Your task to perform on an android device: Empty the shopping cart on bestbuy.com. Search for "usb-b" on bestbuy.com, select the first entry, and add it to the cart. Image 0: 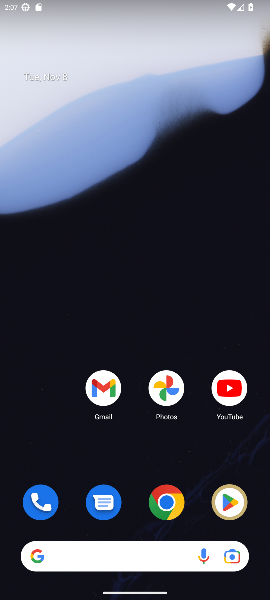
Step 0: drag from (98, 495) to (100, 177)
Your task to perform on an android device: Empty the shopping cart on bestbuy.com. Search for "usb-b" on bestbuy.com, select the first entry, and add it to the cart. Image 1: 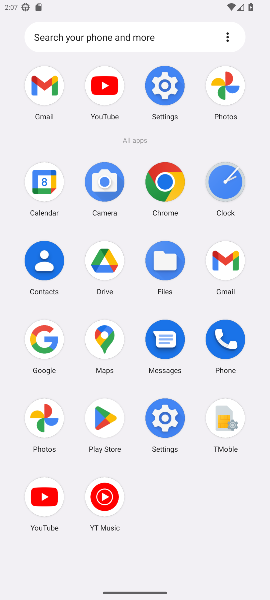
Step 1: click (35, 326)
Your task to perform on an android device: Empty the shopping cart on bestbuy.com. Search for "usb-b" on bestbuy.com, select the first entry, and add it to the cart. Image 2: 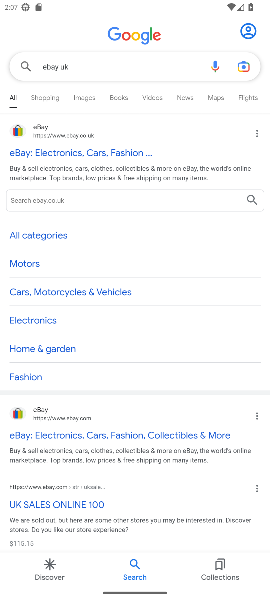
Step 2: click (94, 68)
Your task to perform on an android device: Empty the shopping cart on bestbuy.com. Search for "usb-b" on bestbuy.com, select the first entry, and add it to the cart. Image 3: 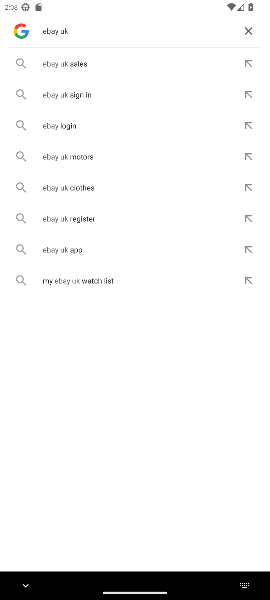
Step 3: click (249, 30)
Your task to perform on an android device: Empty the shopping cart on bestbuy.com. Search for "usb-b" on bestbuy.com, select the first entry, and add it to the cart. Image 4: 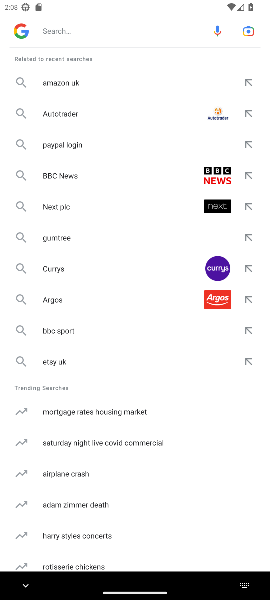
Step 4: click (125, 33)
Your task to perform on an android device: Empty the shopping cart on bestbuy.com. Search for "usb-b" on bestbuy.com, select the first entry, and add it to the cart. Image 5: 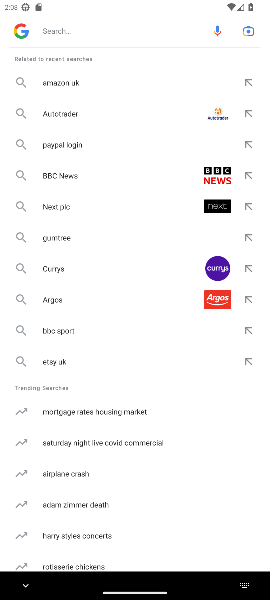
Step 5: type "bestbuy "
Your task to perform on an android device: Empty the shopping cart on bestbuy.com. Search for "usb-b" on bestbuy.com, select the first entry, and add it to the cart. Image 6: 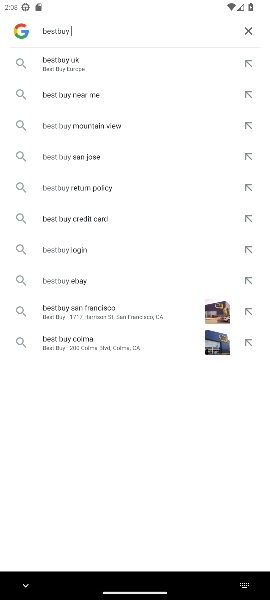
Step 6: click (71, 57)
Your task to perform on an android device: Empty the shopping cart on bestbuy.com. Search for "usb-b" on bestbuy.com, select the first entry, and add it to the cart. Image 7: 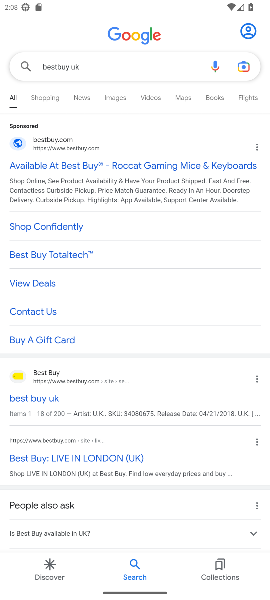
Step 7: click (17, 371)
Your task to perform on an android device: Empty the shopping cart on bestbuy.com. Search for "usb-b" on bestbuy.com, select the first entry, and add it to the cart. Image 8: 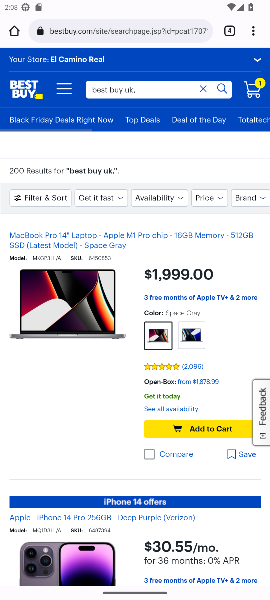
Step 8: click (126, 82)
Your task to perform on an android device: Empty the shopping cart on bestbuy.com. Search for "usb-b" on bestbuy.com, select the first entry, and add it to the cart. Image 9: 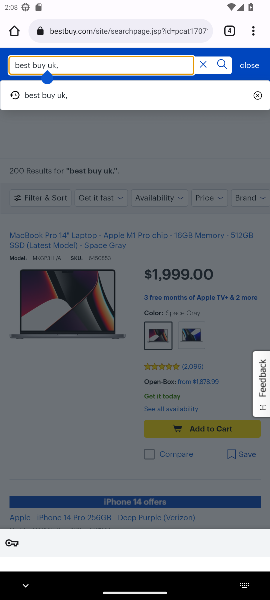
Step 9: click (202, 67)
Your task to perform on an android device: Empty the shopping cart on bestbuy.com. Search for "usb-b" on bestbuy.com, select the first entry, and add it to the cart. Image 10: 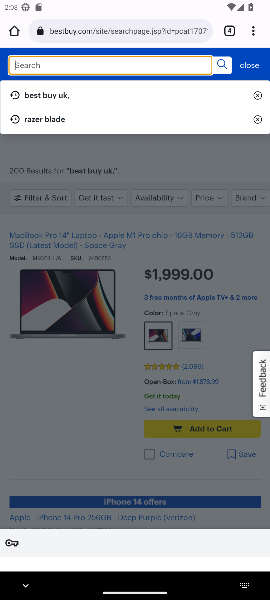
Step 10: click (87, 64)
Your task to perform on an android device: Empty the shopping cart on bestbuy.com. Search for "usb-b" on bestbuy.com, select the first entry, and add it to the cart. Image 11: 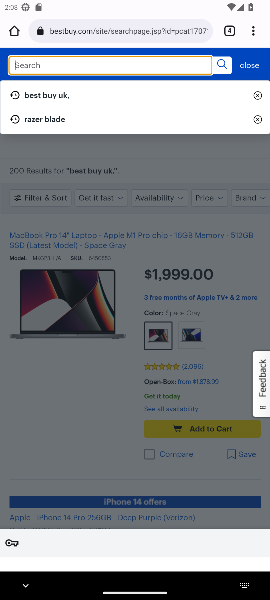
Step 11: click (102, 67)
Your task to perform on an android device: Empty the shopping cart on bestbuy.com. Search for "usb-b" on bestbuy.com, select the first entry, and add it to the cart. Image 12: 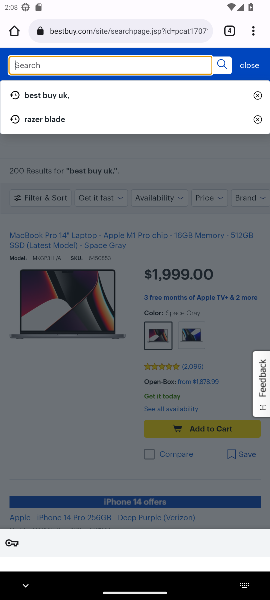
Step 12: click (102, 67)
Your task to perform on an android device: Empty the shopping cart on bestbuy.com. Search for "usb-b" on bestbuy.com, select the first entry, and add it to the cart. Image 13: 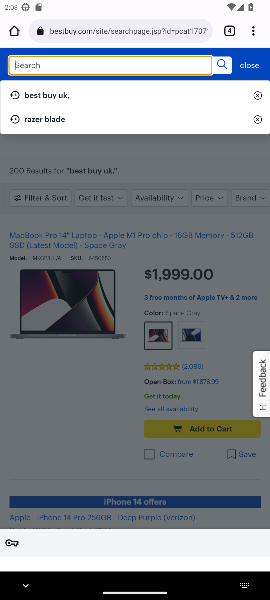
Step 13: click (104, 59)
Your task to perform on an android device: Empty the shopping cart on bestbuy.com. Search for "usb-b" on bestbuy.com, select the first entry, and add it to the cart. Image 14: 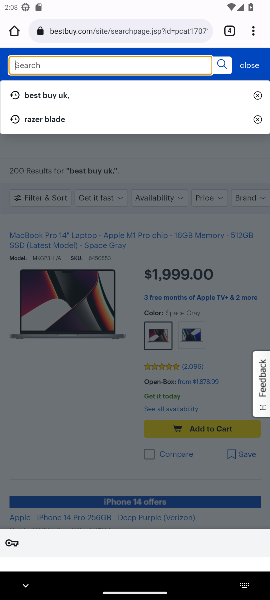
Step 14: click (104, 59)
Your task to perform on an android device: Empty the shopping cart on bestbuy.com. Search for "usb-b" on bestbuy.com, select the first entry, and add it to the cart. Image 15: 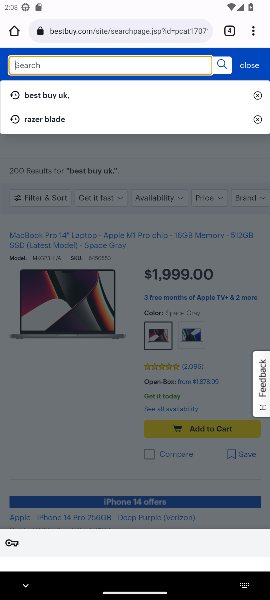
Step 15: type "usb-b "
Your task to perform on an android device: Empty the shopping cart on bestbuy.com. Search for "usb-b" on bestbuy.com, select the first entry, and add it to the cart. Image 16: 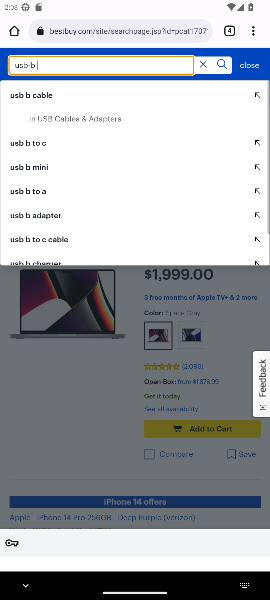
Step 16: click (43, 91)
Your task to perform on an android device: Empty the shopping cart on bestbuy.com. Search for "usb-b" on bestbuy.com, select the first entry, and add it to the cart. Image 17: 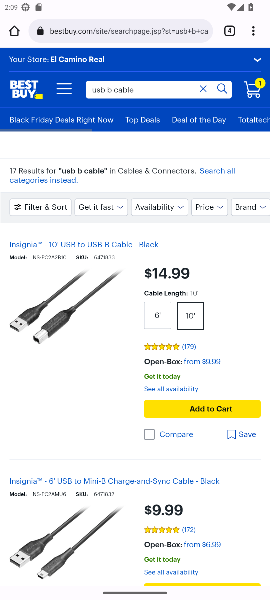
Step 17: click (205, 402)
Your task to perform on an android device: Empty the shopping cart on bestbuy.com. Search for "usb-b" on bestbuy.com, select the first entry, and add it to the cart. Image 18: 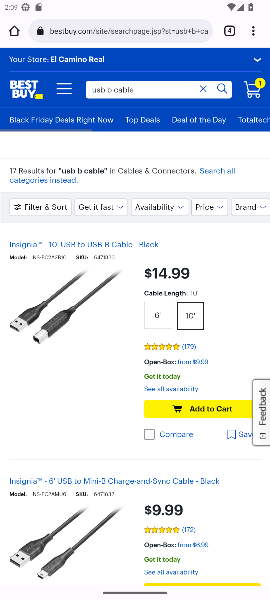
Step 18: click (200, 409)
Your task to perform on an android device: Empty the shopping cart on bestbuy.com. Search for "usb-b" on bestbuy.com, select the first entry, and add it to the cart. Image 19: 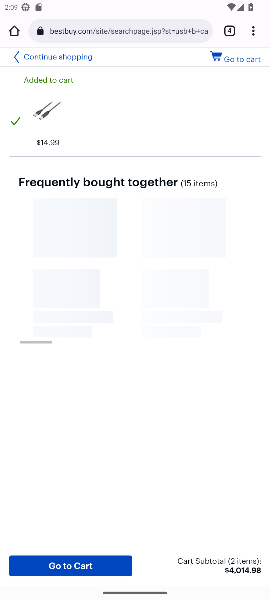
Step 19: click (92, 557)
Your task to perform on an android device: Empty the shopping cart on bestbuy.com. Search for "usb-b" on bestbuy.com, select the first entry, and add it to the cart. Image 20: 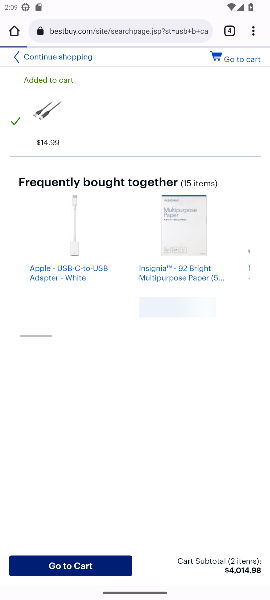
Step 20: click (92, 561)
Your task to perform on an android device: Empty the shopping cart on bestbuy.com. Search for "usb-b" on bestbuy.com, select the first entry, and add it to the cart. Image 21: 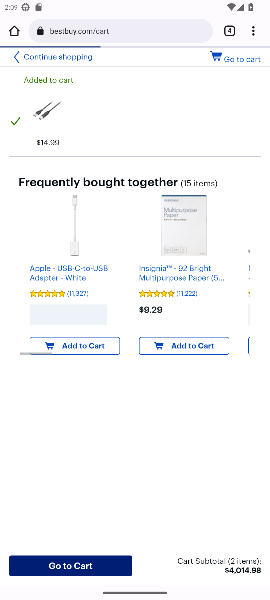
Step 21: click (92, 561)
Your task to perform on an android device: Empty the shopping cart on bestbuy.com. Search for "usb-b" on bestbuy.com, select the first entry, and add it to the cart. Image 22: 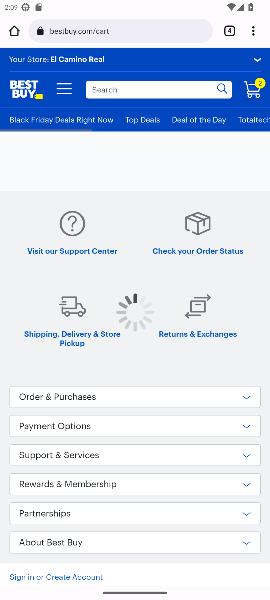
Step 22: task complete